Your task to perform on an android device: change alarm snooze length Image 0: 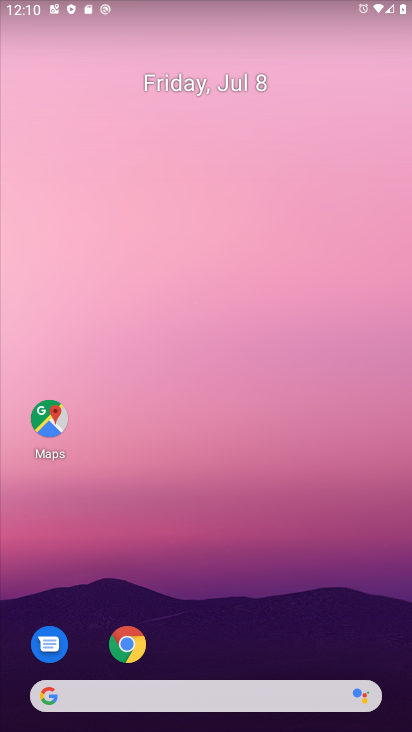
Step 0: drag from (232, 624) to (268, 23)
Your task to perform on an android device: change alarm snooze length Image 1: 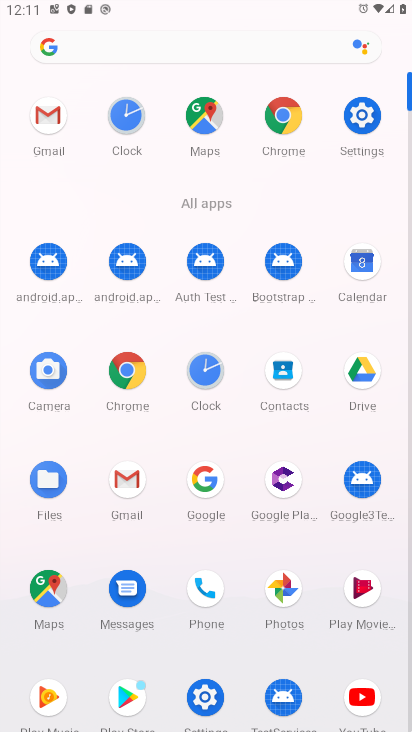
Step 1: click (193, 381)
Your task to perform on an android device: change alarm snooze length Image 2: 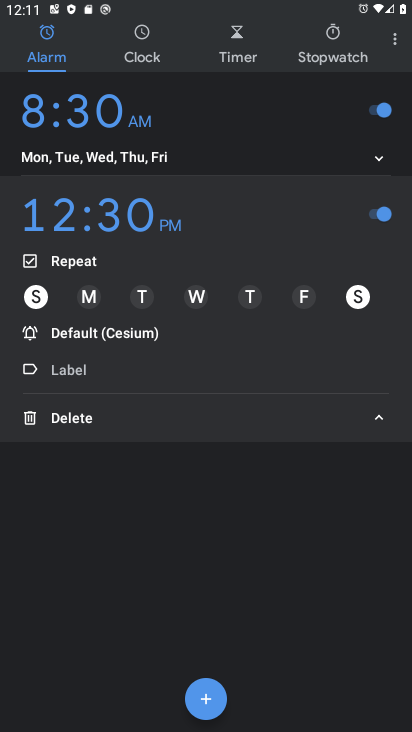
Step 2: click (391, 43)
Your task to perform on an android device: change alarm snooze length Image 3: 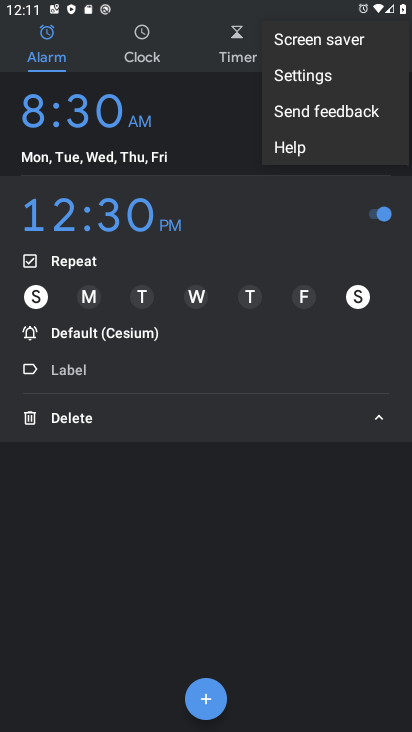
Step 3: click (308, 78)
Your task to perform on an android device: change alarm snooze length Image 4: 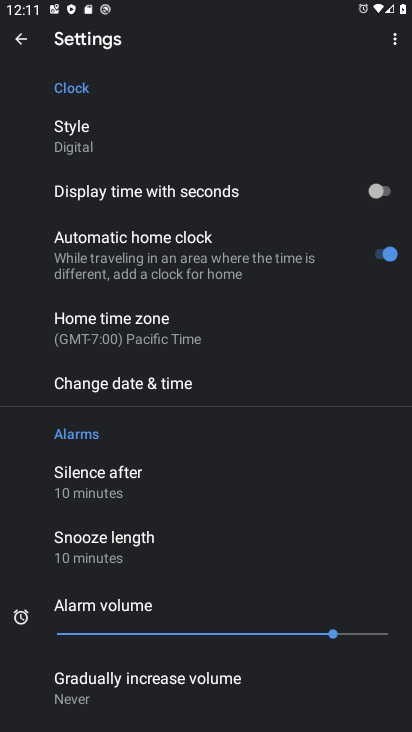
Step 4: drag from (171, 531) to (232, 285)
Your task to perform on an android device: change alarm snooze length Image 5: 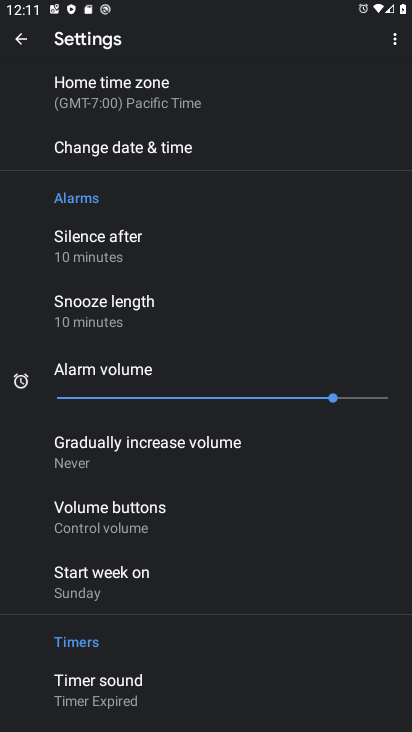
Step 5: drag from (152, 492) to (182, 343)
Your task to perform on an android device: change alarm snooze length Image 6: 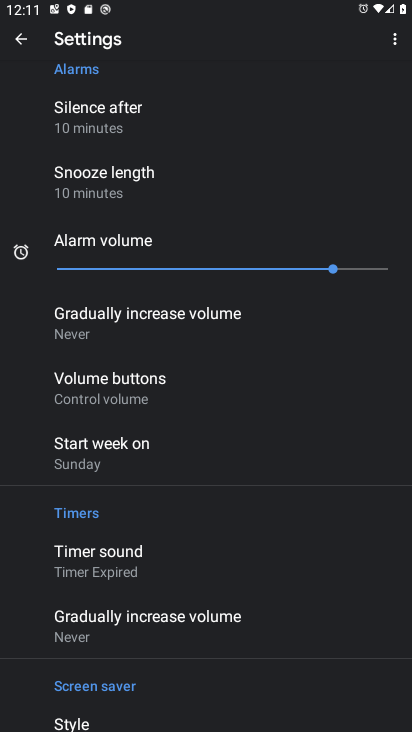
Step 6: drag from (149, 540) to (189, 284)
Your task to perform on an android device: change alarm snooze length Image 7: 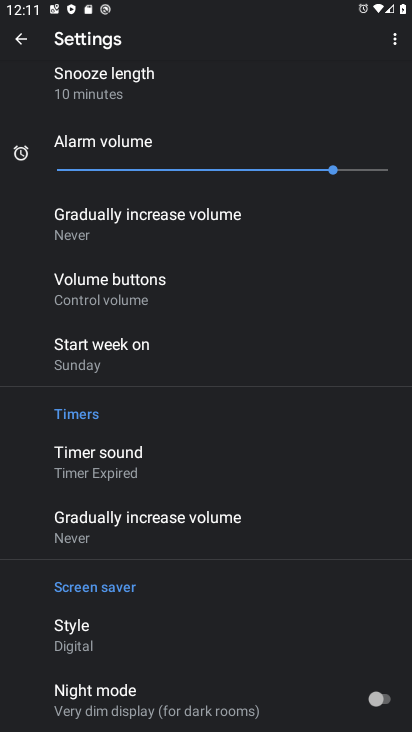
Step 7: drag from (121, 496) to (149, 530)
Your task to perform on an android device: change alarm snooze length Image 8: 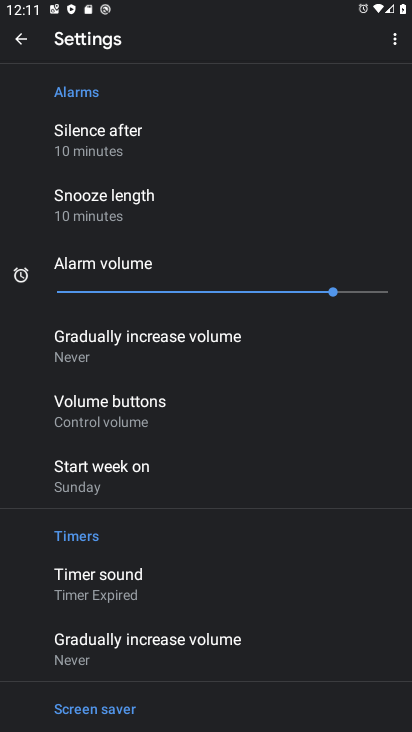
Step 8: click (103, 214)
Your task to perform on an android device: change alarm snooze length Image 9: 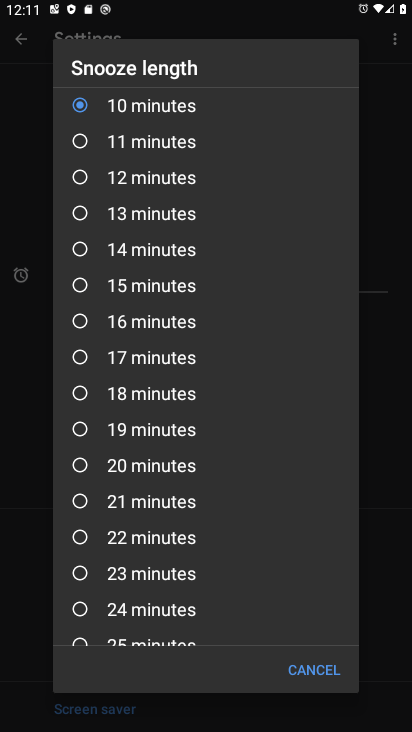
Step 9: click (113, 249)
Your task to perform on an android device: change alarm snooze length Image 10: 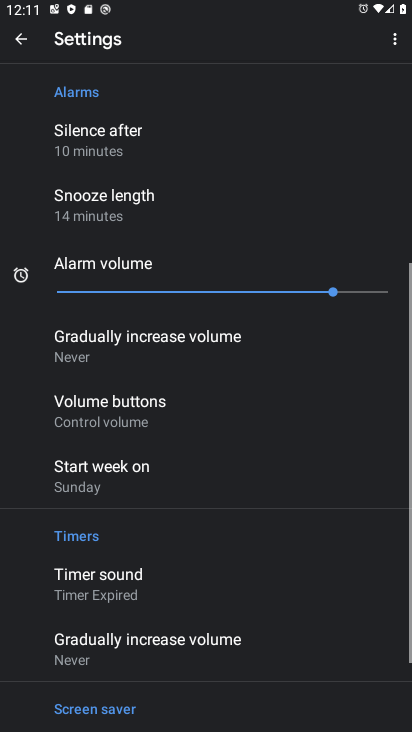
Step 10: task complete